Your task to perform on an android device: open chrome privacy settings Image 0: 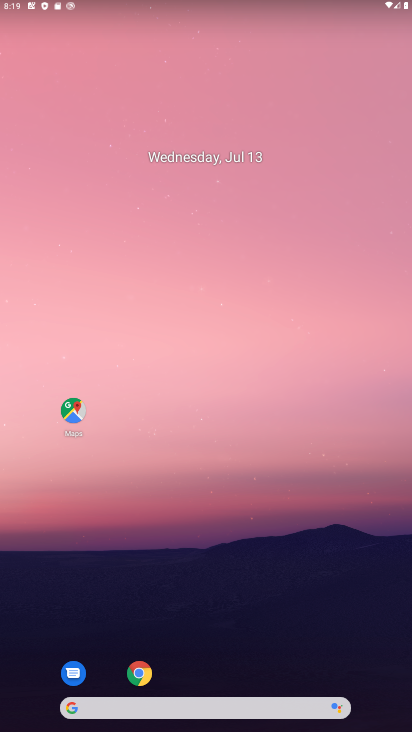
Step 0: drag from (326, 622) to (344, 182)
Your task to perform on an android device: open chrome privacy settings Image 1: 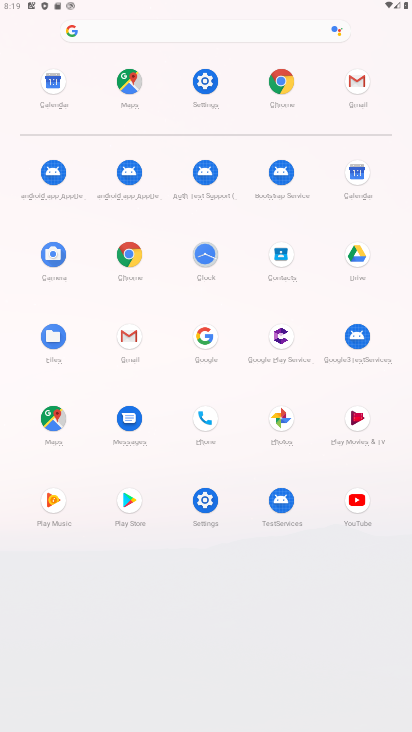
Step 1: click (126, 253)
Your task to perform on an android device: open chrome privacy settings Image 2: 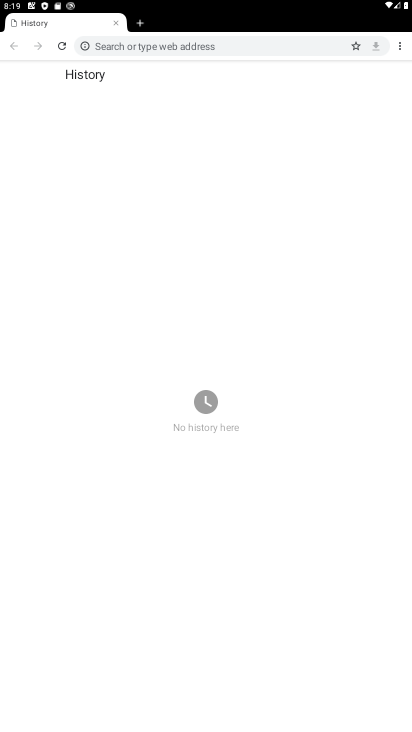
Step 2: drag from (398, 44) to (308, 240)
Your task to perform on an android device: open chrome privacy settings Image 3: 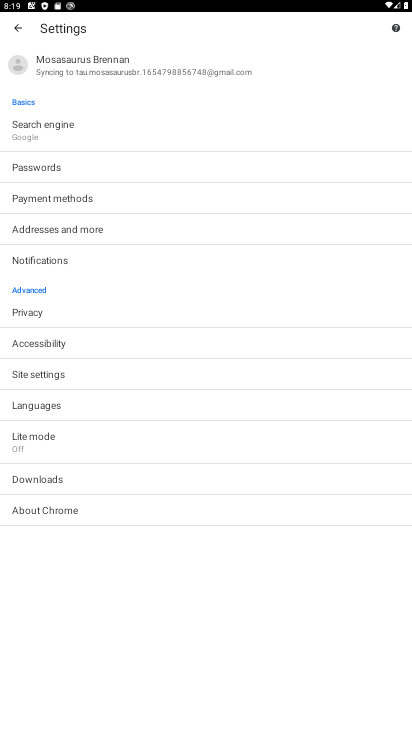
Step 3: click (39, 311)
Your task to perform on an android device: open chrome privacy settings Image 4: 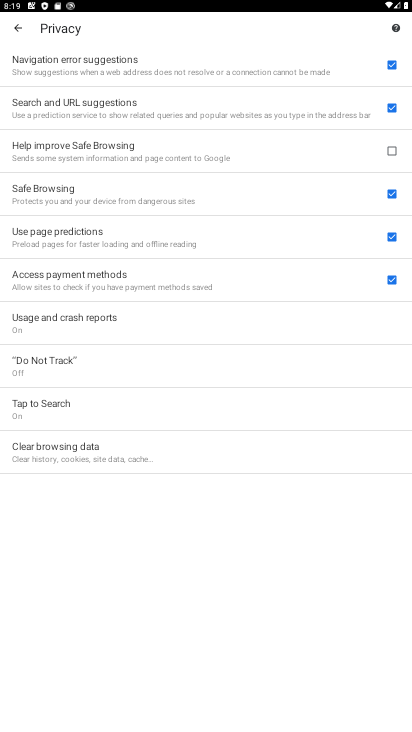
Step 4: task complete